Your task to perform on an android device: Open Chrome and go to the settings page Image 0: 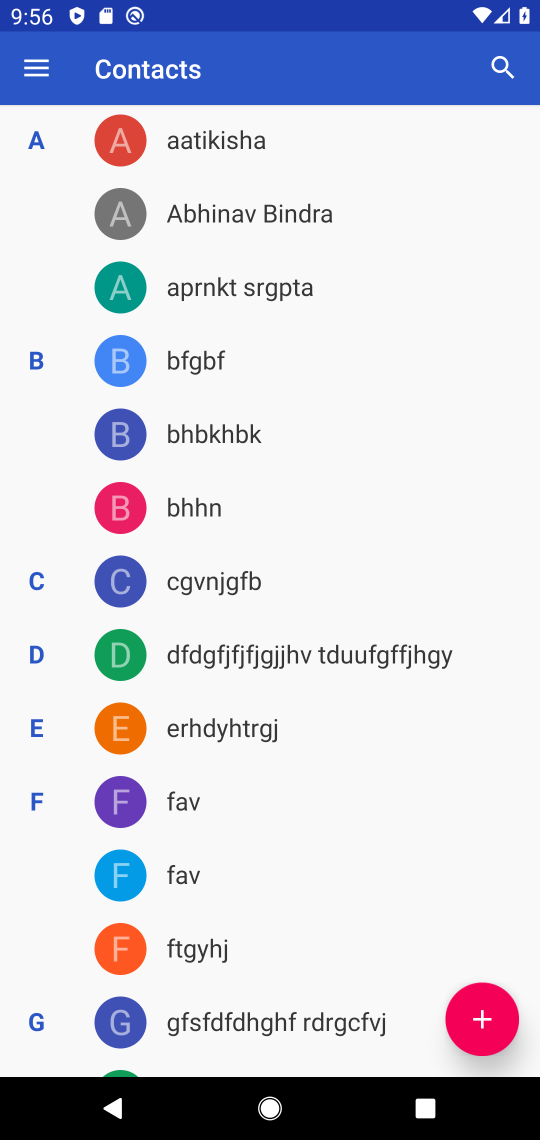
Step 0: press back button
Your task to perform on an android device: Open Chrome and go to the settings page Image 1: 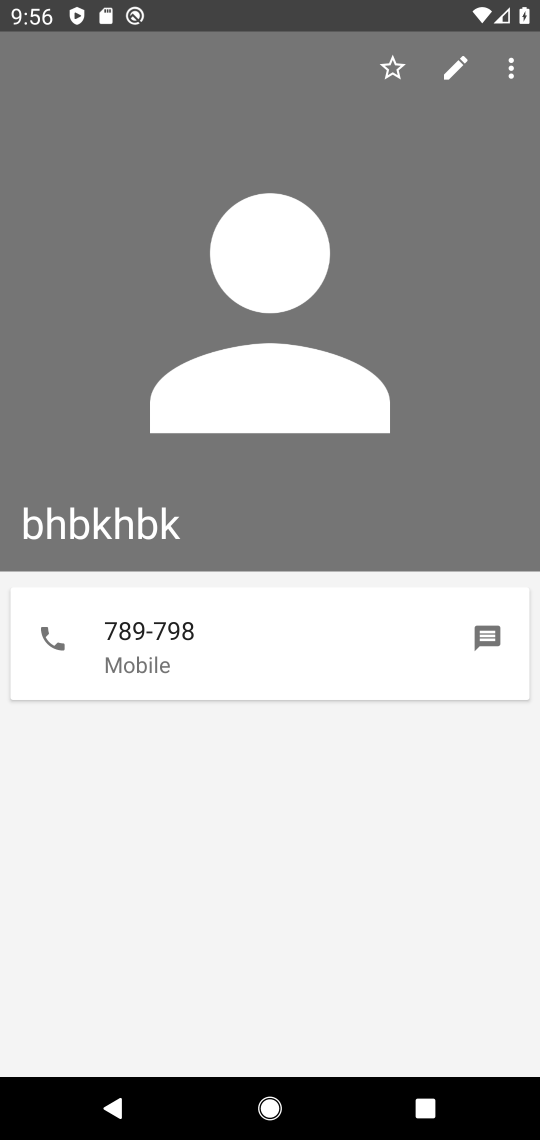
Step 1: press home button
Your task to perform on an android device: Open Chrome and go to the settings page Image 2: 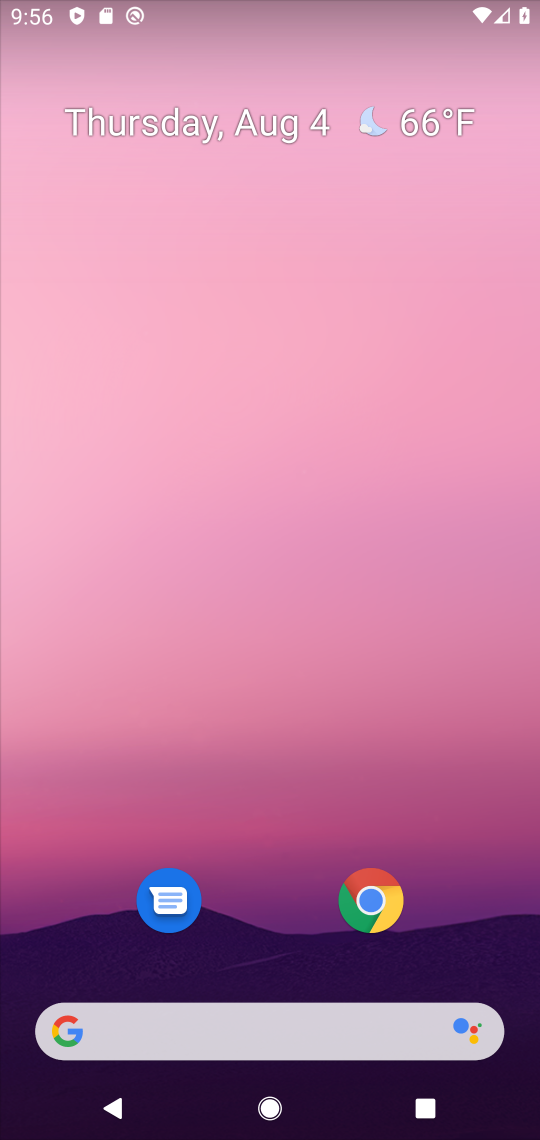
Step 2: drag from (487, 899) to (283, 207)
Your task to perform on an android device: Open Chrome and go to the settings page Image 3: 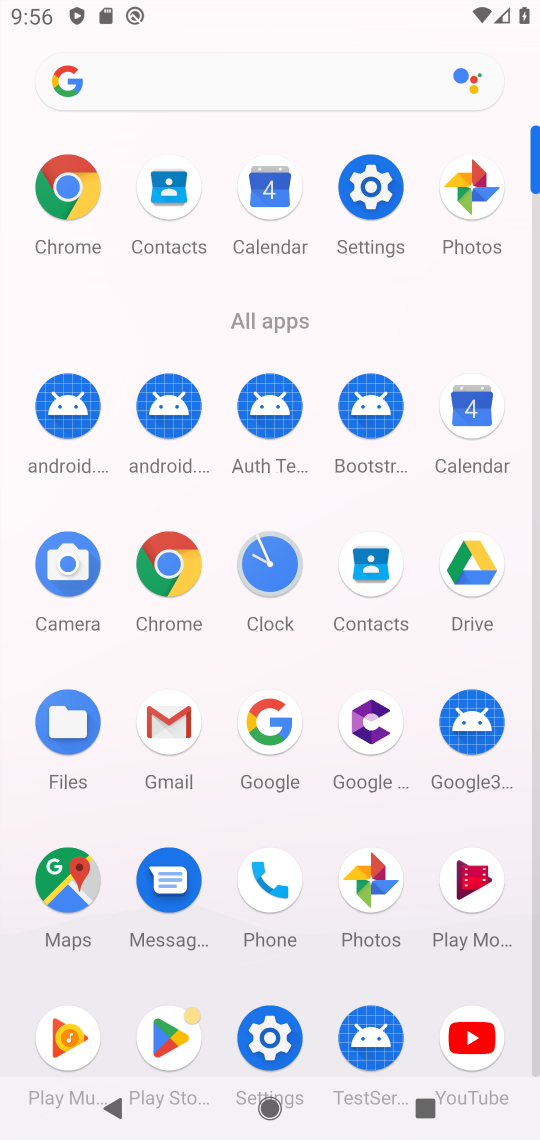
Step 3: click (75, 208)
Your task to perform on an android device: Open Chrome and go to the settings page Image 4: 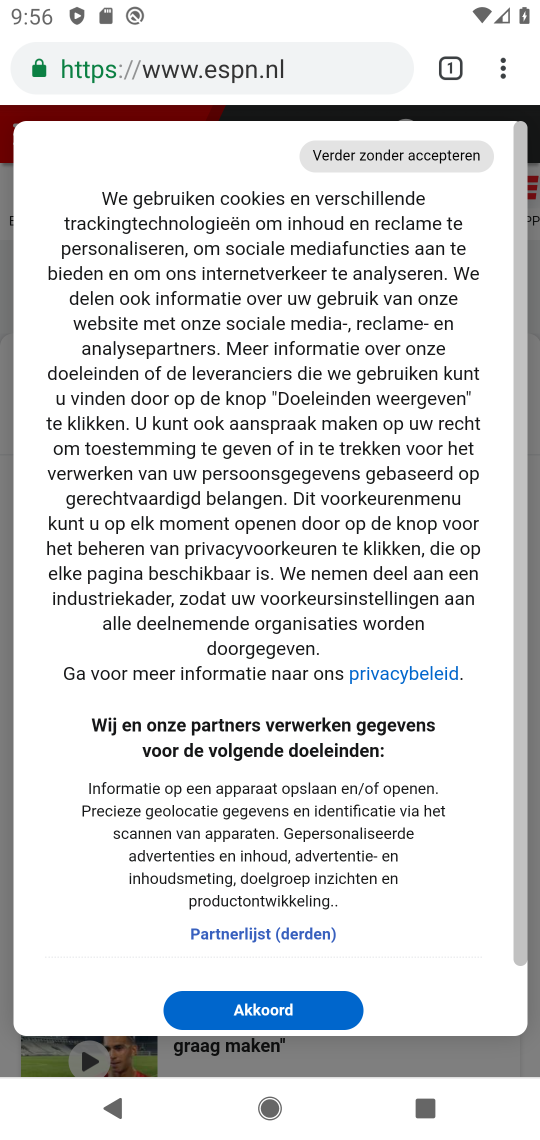
Step 4: click (514, 63)
Your task to perform on an android device: Open Chrome and go to the settings page Image 5: 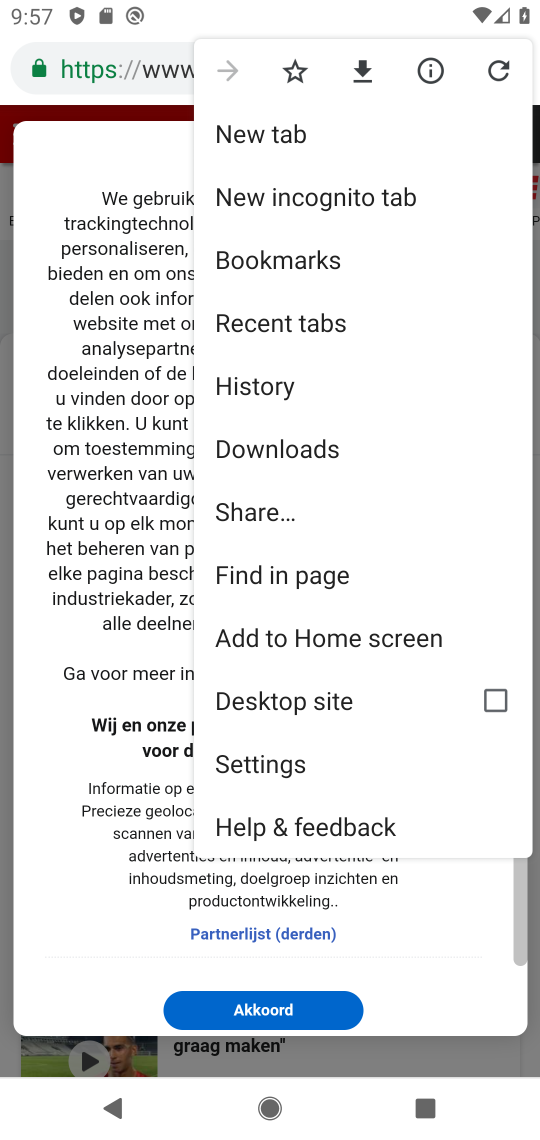
Step 5: click (315, 767)
Your task to perform on an android device: Open Chrome and go to the settings page Image 6: 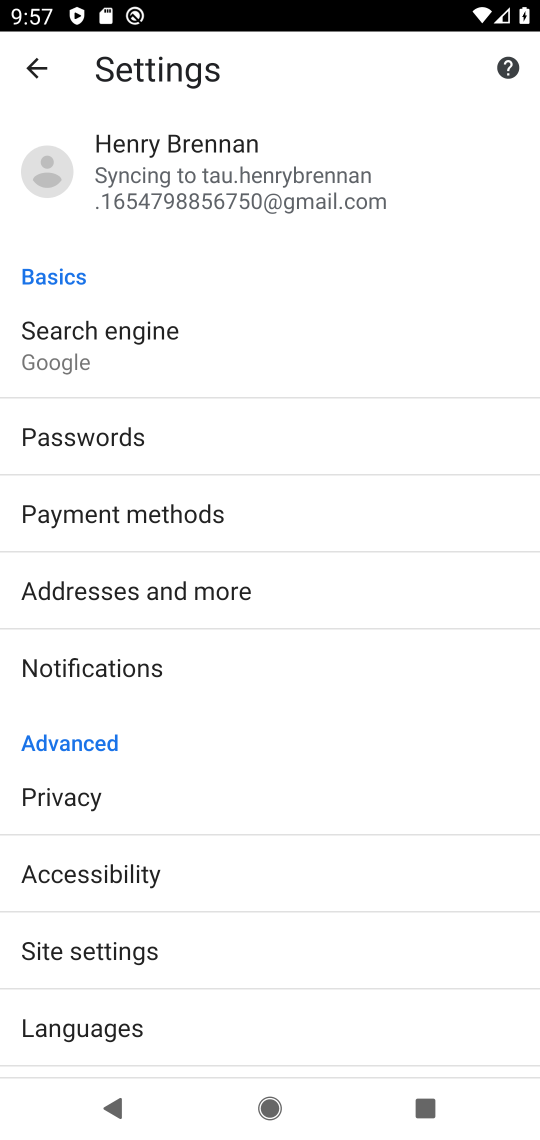
Step 6: task complete